Your task to perform on an android device: Open the calendar and show me this week's events Image 0: 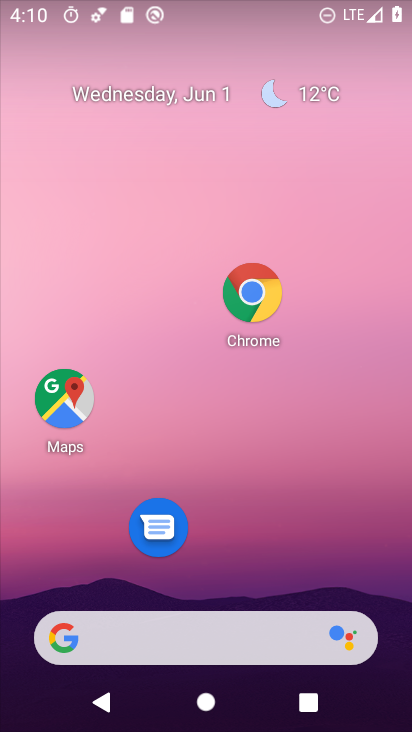
Step 0: drag from (261, 499) to (331, 3)
Your task to perform on an android device: Open the calendar and show me this week's events Image 1: 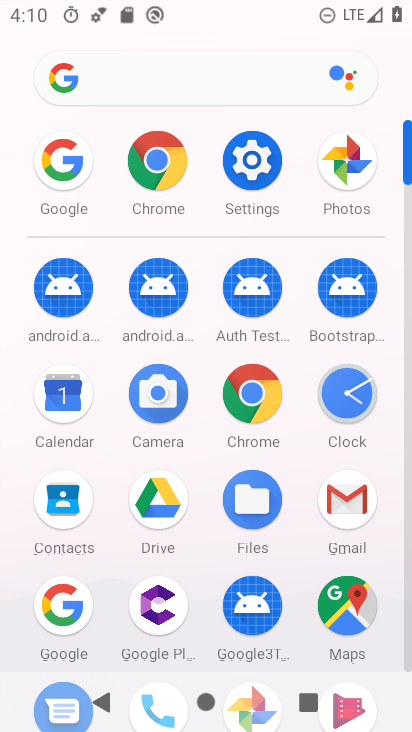
Step 1: drag from (229, 544) to (224, 186)
Your task to perform on an android device: Open the calendar and show me this week's events Image 2: 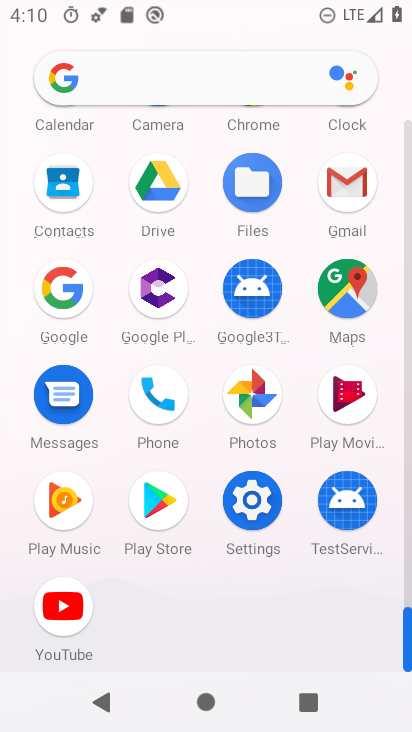
Step 2: drag from (211, 269) to (232, 615)
Your task to perform on an android device: Open the calendar and show me this week's events Image 3: 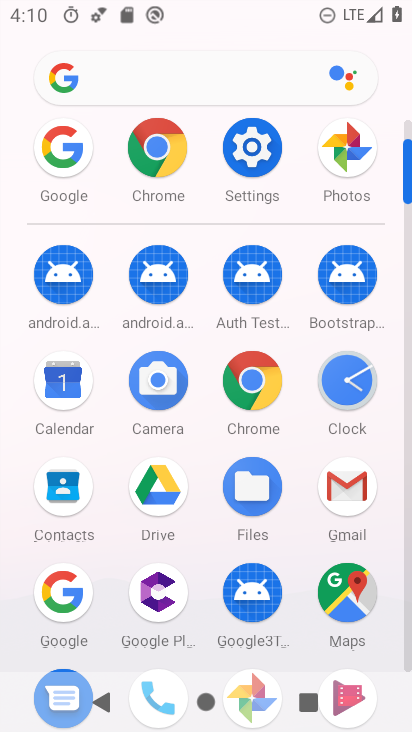
Step 3: click (68, 405)
Your task to perform on an android device: Open the calendar and show me this week's events Image 4: 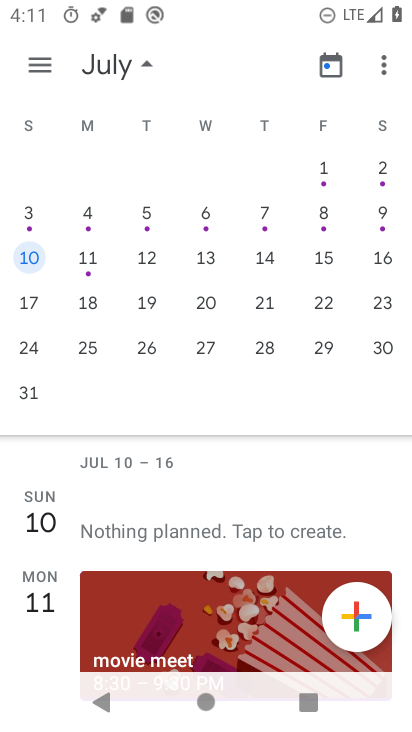
Step 4: drag from (106, 284) to (410, 254)
Your task to perform on an android device: Open the calendar and show me this week's events Image 5: 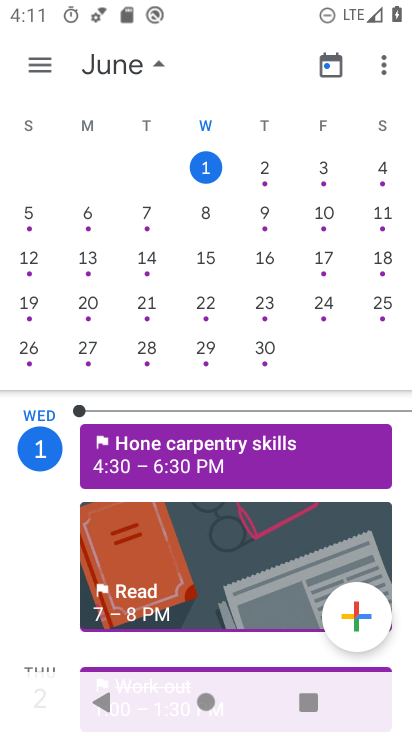
Step 5: click (206, 170)
Your task to perform on an android device: Open the calendar and show me this week's events Image 6: 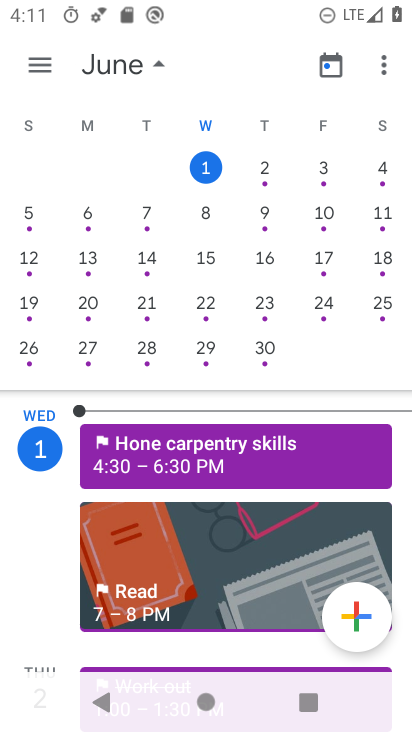
Step 6: task complete